Your task to perform on an android device: all mails in gmail Image 0: 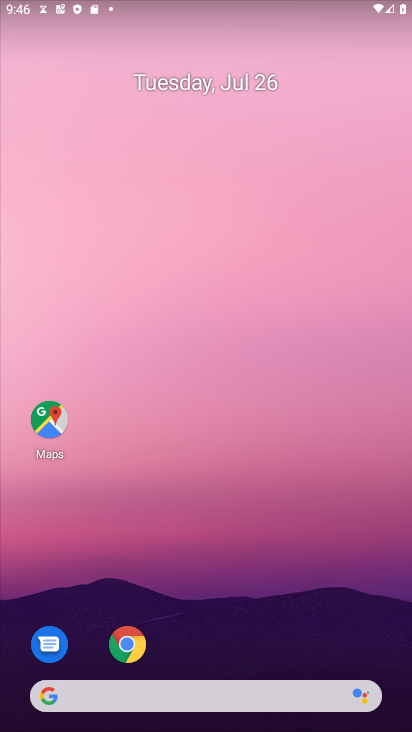
Step 0: drag from (242, 660) to (284, 12)
Your task to perform on an android device: all mails in gmail Image 1: 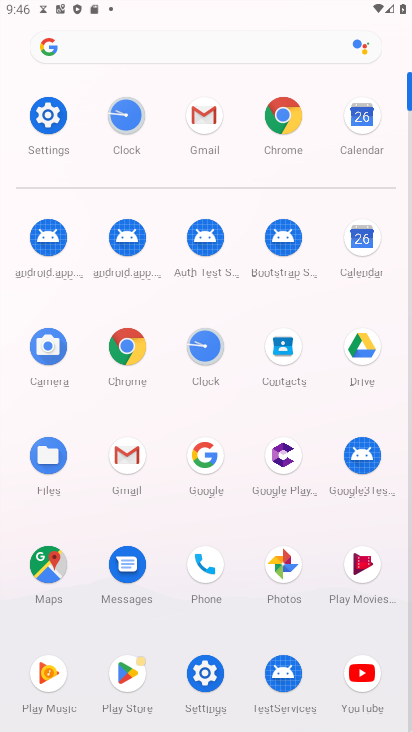
Step 1: click (127, 472)
Your task to perform on an android device: all mails in gmail Image 2: 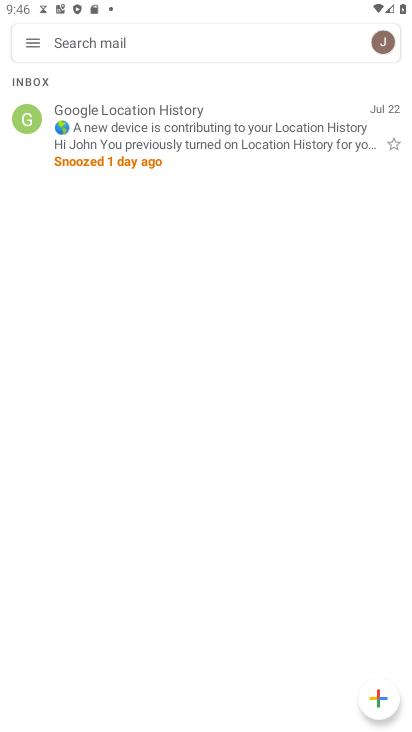
Step 2: click (38, 44)
Your task to perform on an android device: all mails in gmail Image 3: 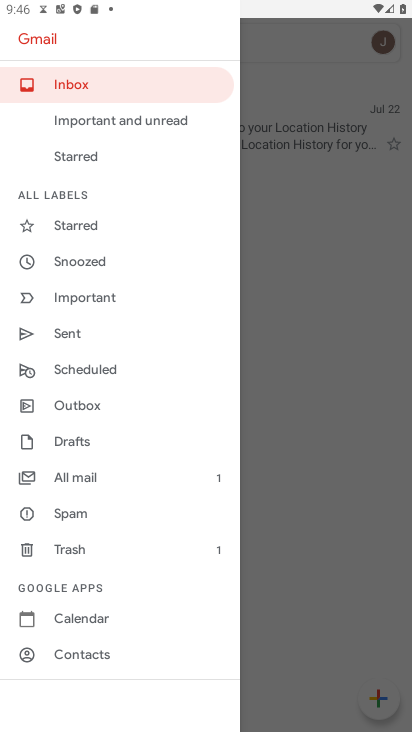
Step 3: click (95, 479)
Your task to perform on an android device: all mails in gmail Image 4: 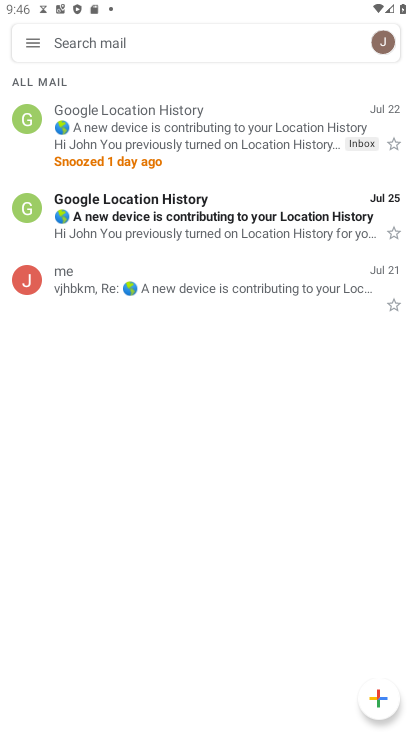
Step 4: task complete